Your task to perform on an android device: change the upload size in google photos Image 0: 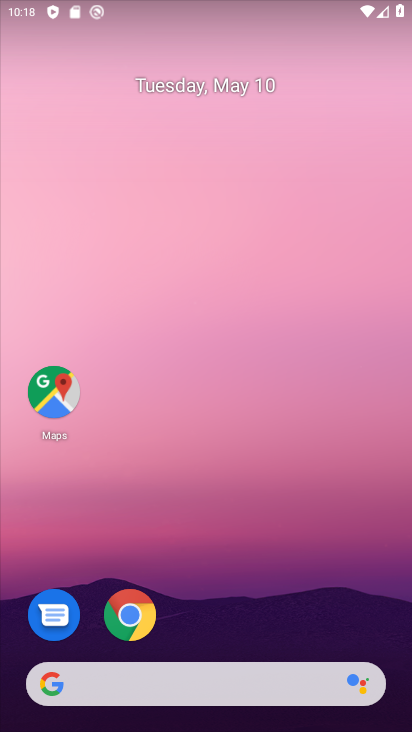
Step 0: drag from (252, 603) to (170, 69)
Your task to perform on an android device: change the upload size in google photos Image 1: 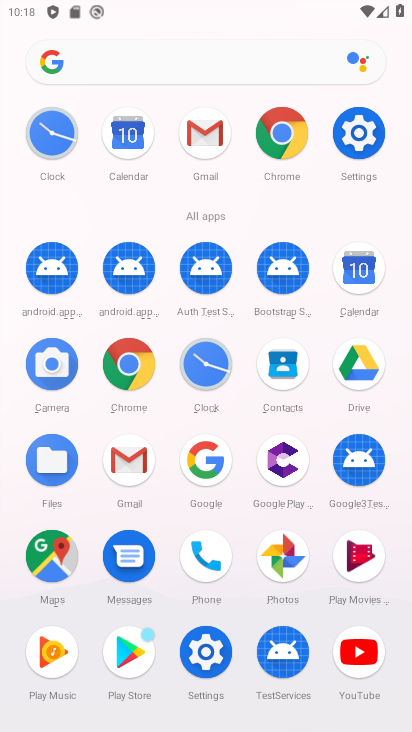
Step 1: drag from (175, 499) to (161, 316)
Your task to perform on an android device: change the upload size in google photos Image 2: 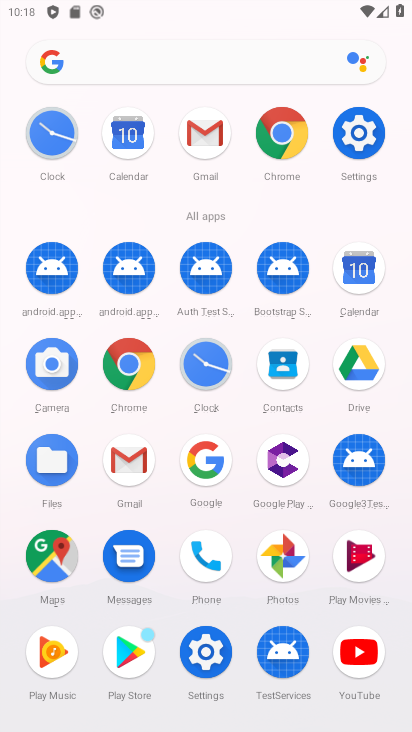
Step 2: click (282, 556)
Your task to perform on an android device: change the upload size in google photos Image 3: 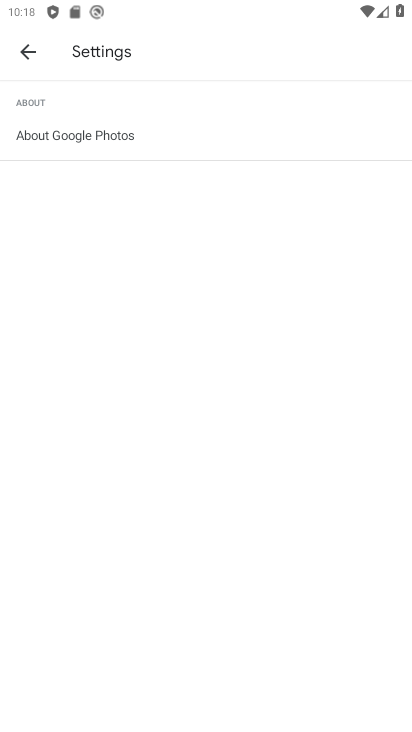
Step 3: press back button
Your task to perform on an android device: change the upload size in google photos Image 4: 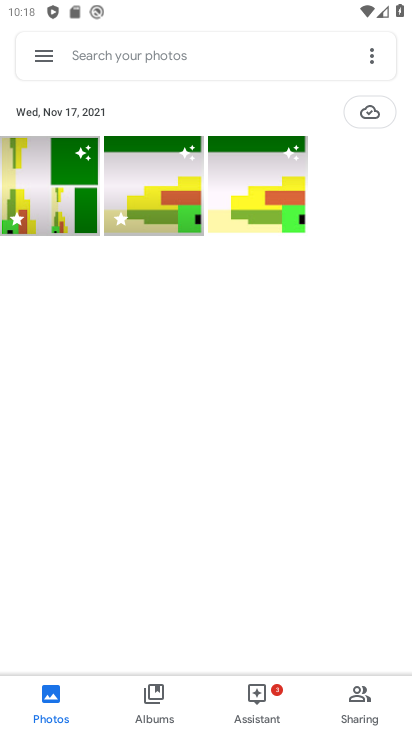
Step 4: click (42, 54)
Your task to perform on an android device: change the upload size in google photos Image 5: 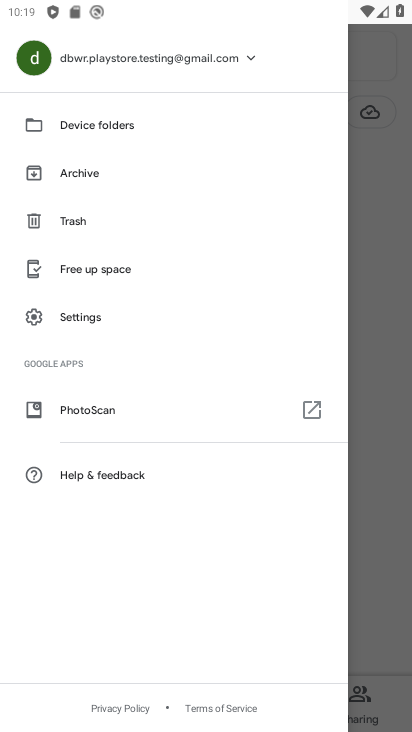
Step 5: click (70, 317)
Your task to perform on an android device: change the upload size in google photos Image 6: 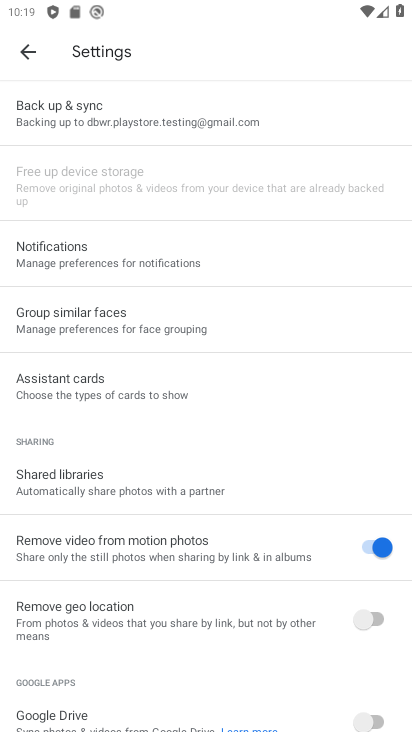
Step 6: click (91, 112)
Your task to perform on an android device: change the upload size in google photos Image 7: 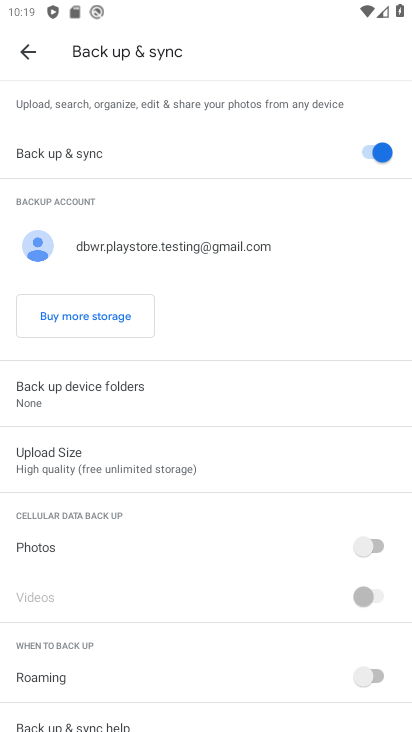
Step 7: click (76, 471)
Your task to perform on an android device: change the upload size in google photos Image 8: 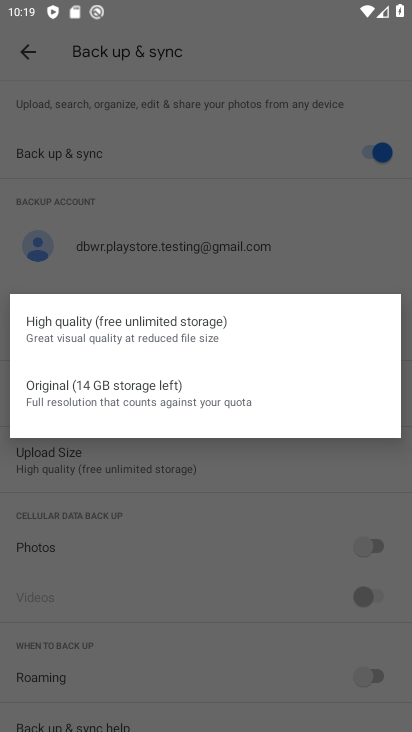
Step 8: click (66, 390)
Your task to perform on an android device: change the upload size in google photos Image 9: 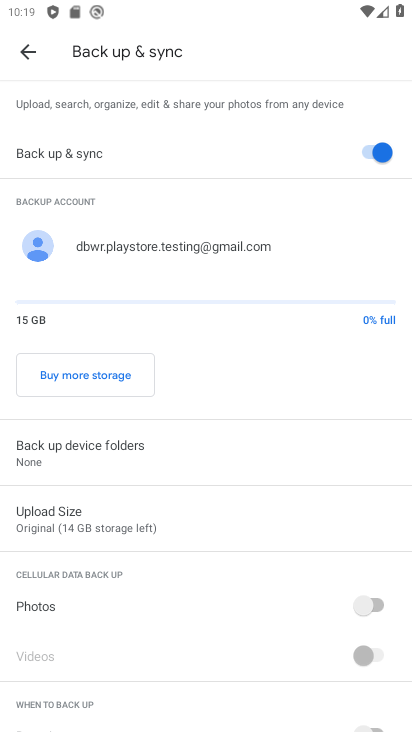
Step 9: task complete